Your task to perform on an android device: change the clock style Image 0: 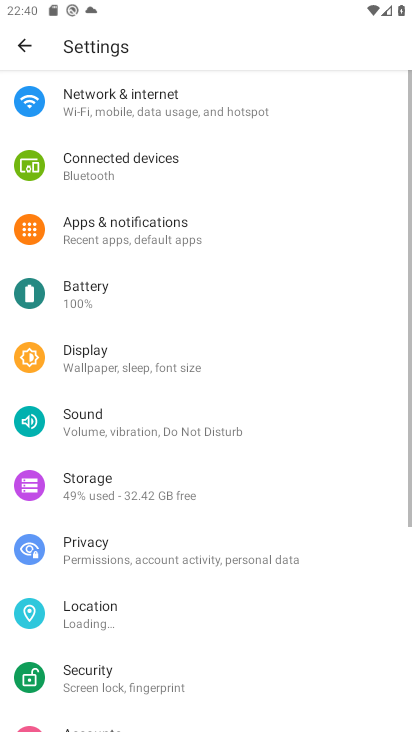
Step 0: press home button
Your task to perform on an android device: change the clock style Image 1: 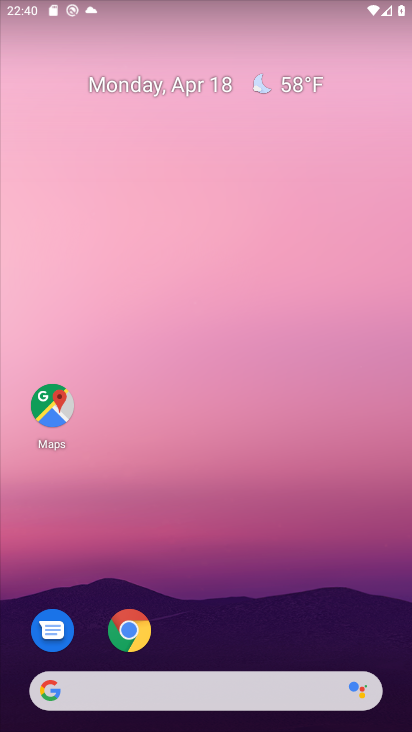
Step 1: drag from (215, 658) to (211, 0)
Your task to perform on an android device: change the clock style Image 2: 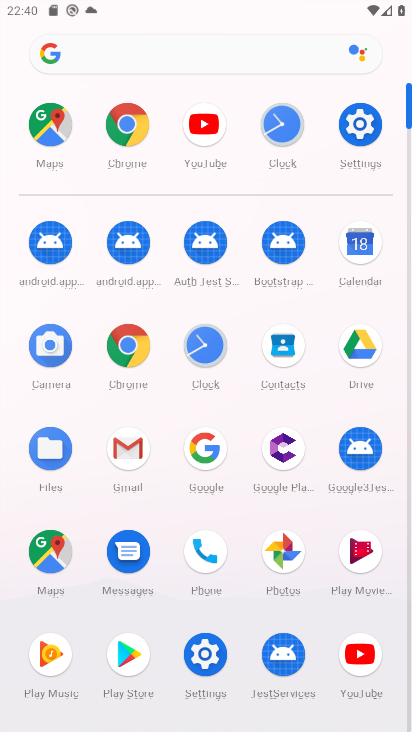
Step 2: click (187, 351)
Your task to perform on an android device: change the clock style Image 3: 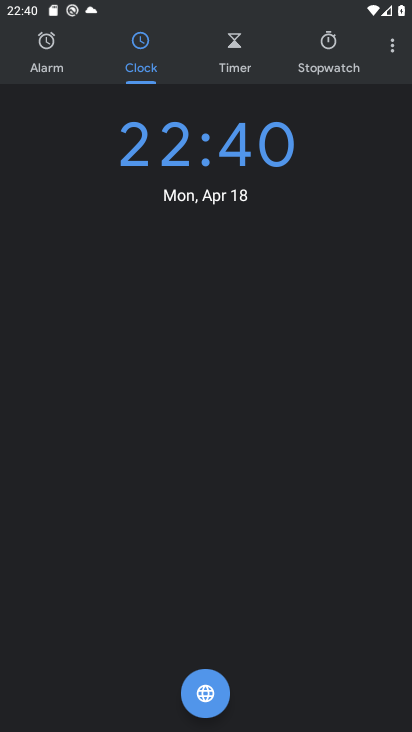
Step 3: click (382, 51)
Your task to perform on an android device: change the clock style Image 4: 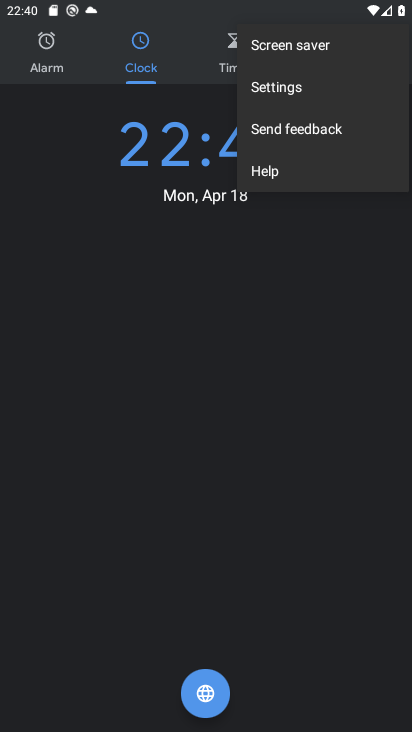
Step 4: click (299, 87)
Your task to perform on an android device: change the clock style Image 5: 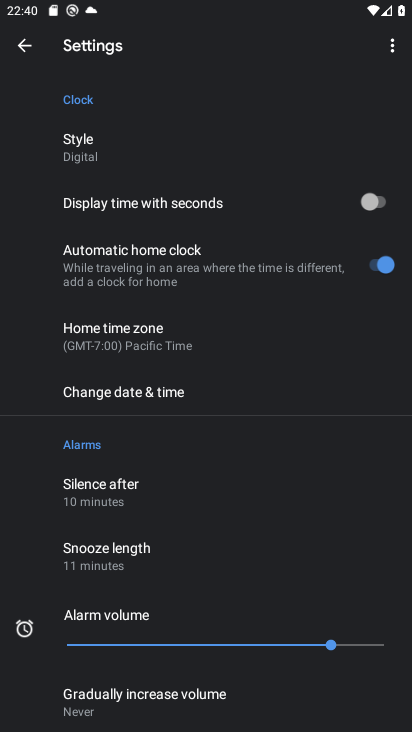
Step 5: click (66, 120)
Your task to perform on an android device: change the clock style Image 6: 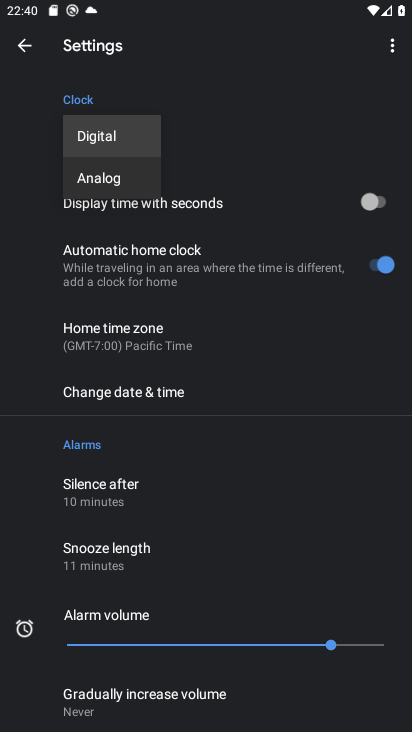
Step 6: click (88, 175)
Your task to perform on an android device: change the clock style Image 7: 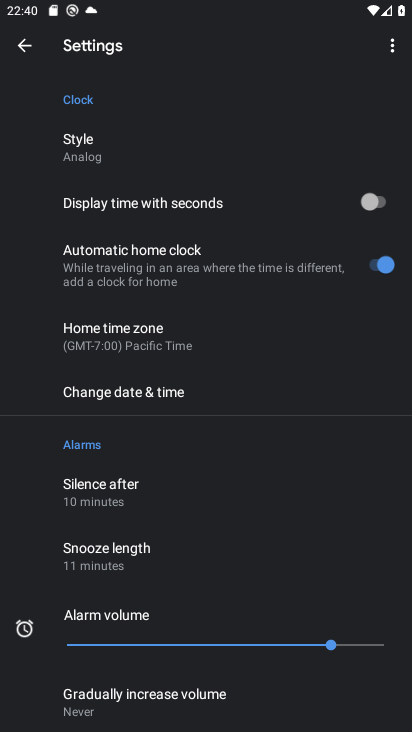
Step 7: task complete